Your task to perform on an android device: Open Chrome and go to the settings page Image 0: 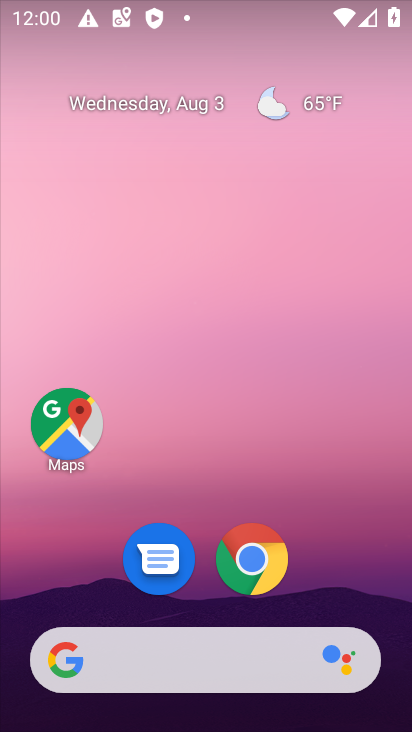
Step 0: click (250, 559)
Your task to perform on an android device: Open Chrome and go to the settings page Image 1: 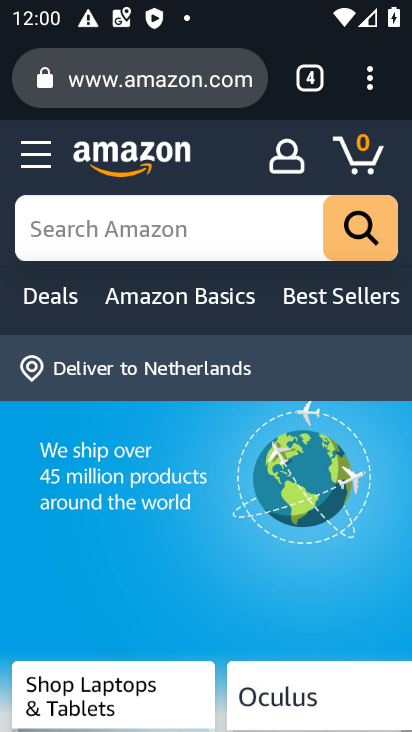
Step 1: click (369, 86)
Your task to perform on an android device: Open Chrome and go to the settings page Image 2: 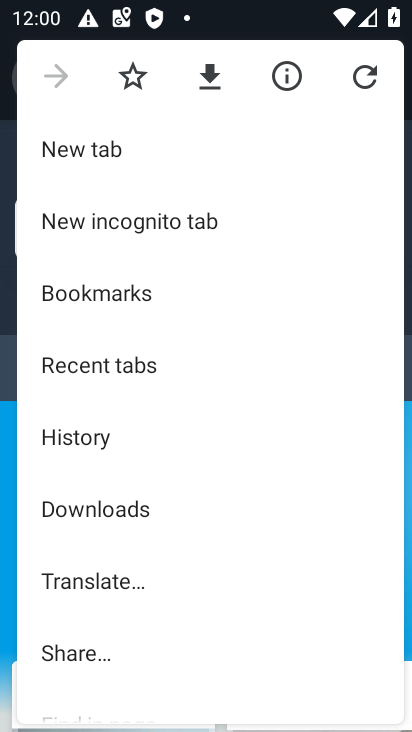
Step 2: drag from (80, 641) to (80, 280)
Your task to perform on an android device: Open Chrome and go to the settings page Image 3: 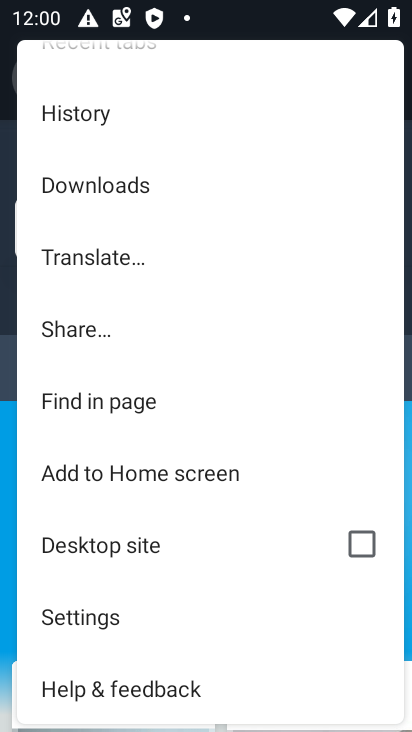
Step 3: click (88, 615)
Your task to perform on an android device: Open Chrome and go to the settings page Image 4: 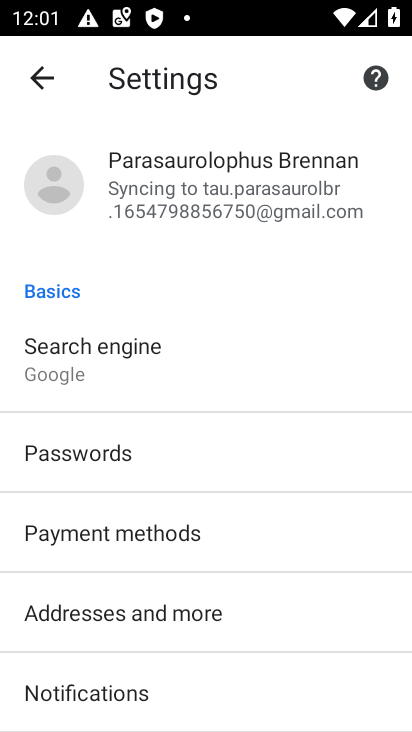
Step 4: task complete